Your task to perform on an android device: turn off data saver in the chrome app Image 0: 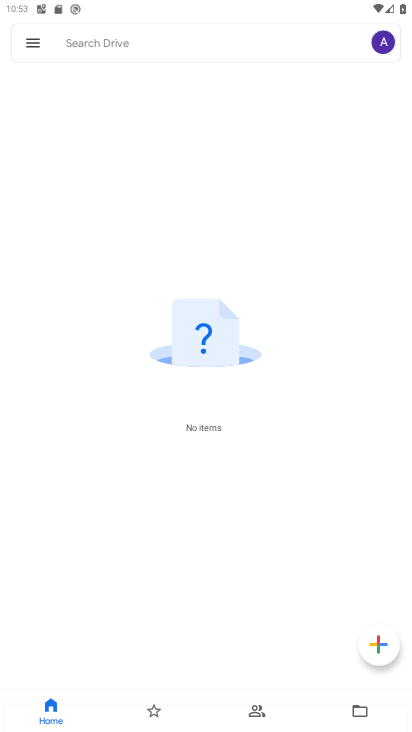
Step 0: press home button
Your task to perform on an android device: turn off data saver in the chrome app Image 1: 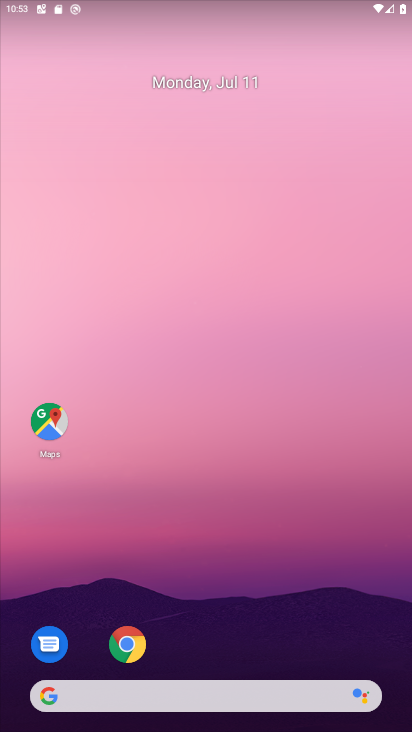
Step 1: click (136, 638)
Your task to perform on an android device: turn off data saver in the chrome app Image 2: 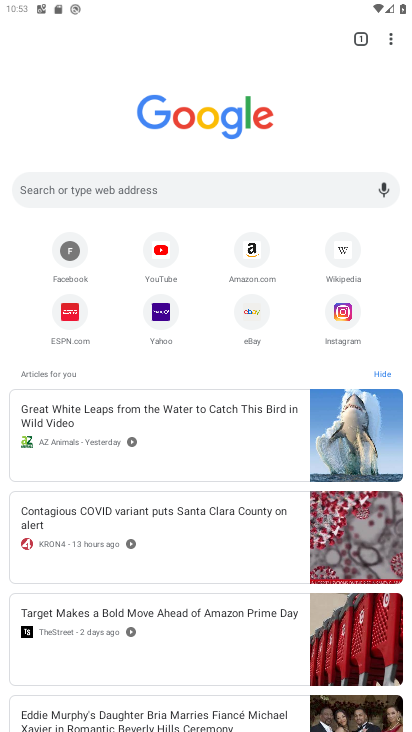
Step 2: click (387, 44)
Your task to perform on an android device: turn off data saver in the chrome app Image 3: 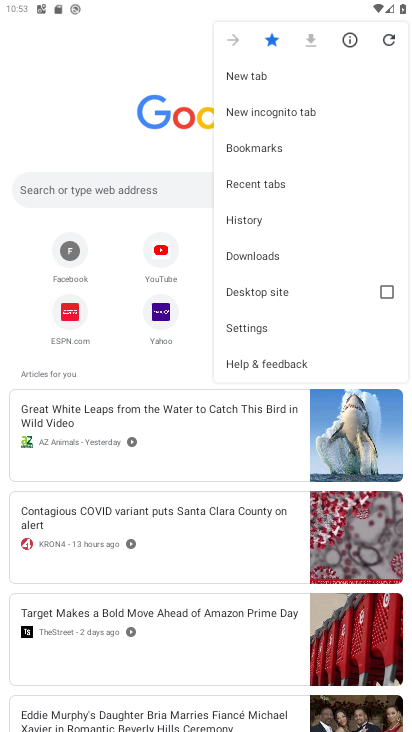
Step 3: click (272, 333)
Your task to perform on an android device: turn off data saver in the chrome app Image 4: 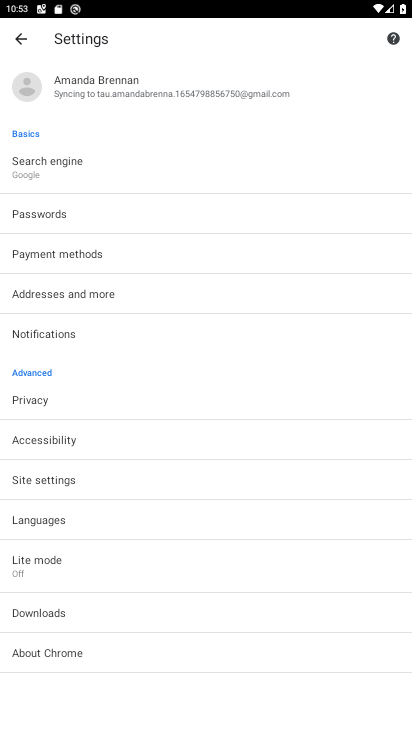
Step 4: click (63, 568)
Your task to perform on an android device: turn off data saver in the chrome app Image 5: 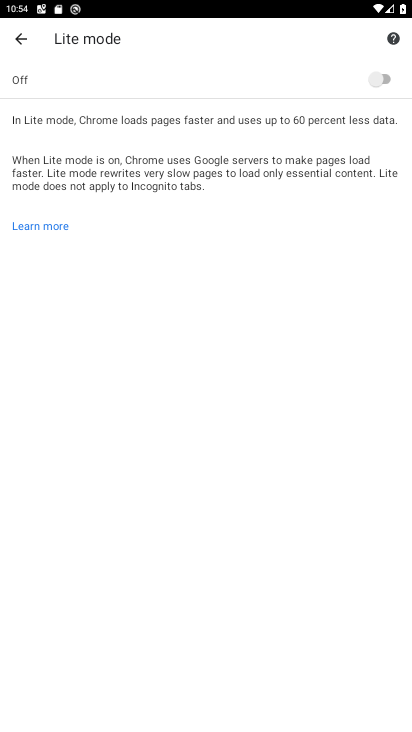
Step 5: task complete